Your task to perform on an android device: Turn off the flashlight Image 0: 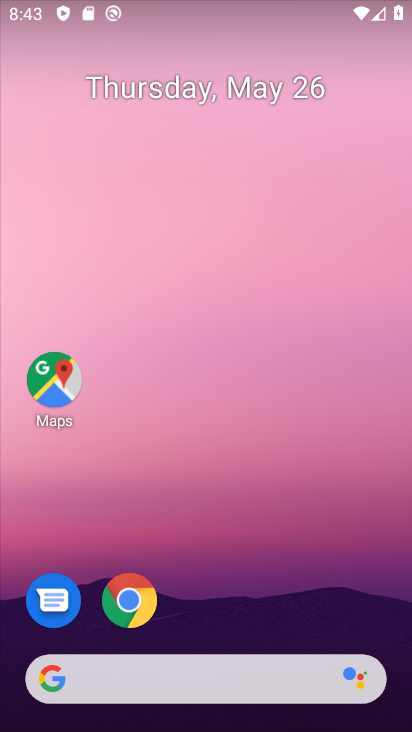
Step 0: drag from (177, 624) to (208, 3)
Your task to perform on an android device: Turn off the flashlight Image 1: 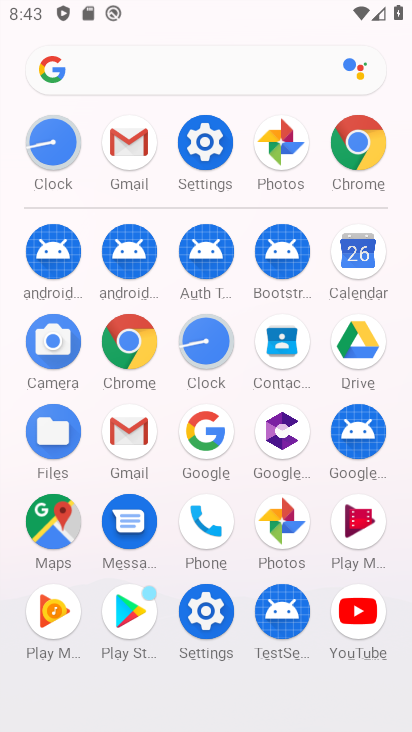
Step 1: click (209, 163)
Your task to perform on an android device: Turn off the flashlight Image 2: 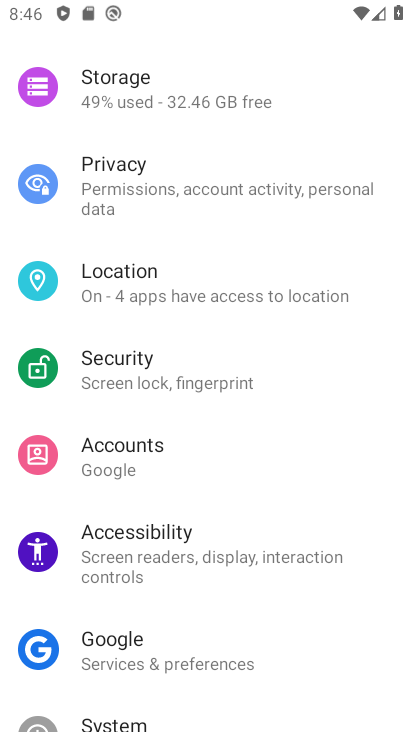
Step 2: task complete